Your task to perform on an android device: move a message to another label in the gmail app Image 0: 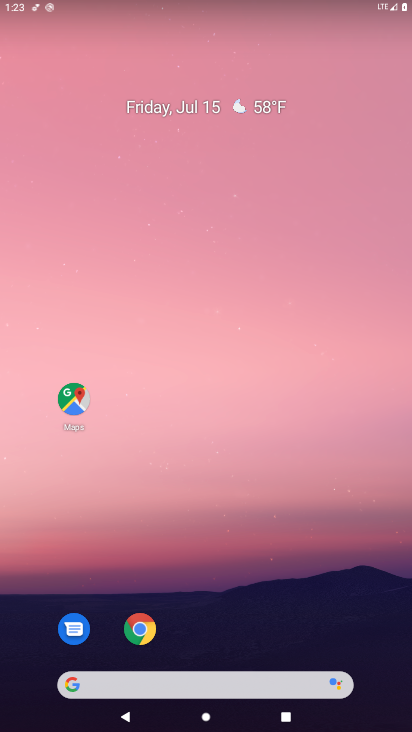
Step 0: press home button
Your task to perform on an android device: move a message to another label in the gmail app Image 1: 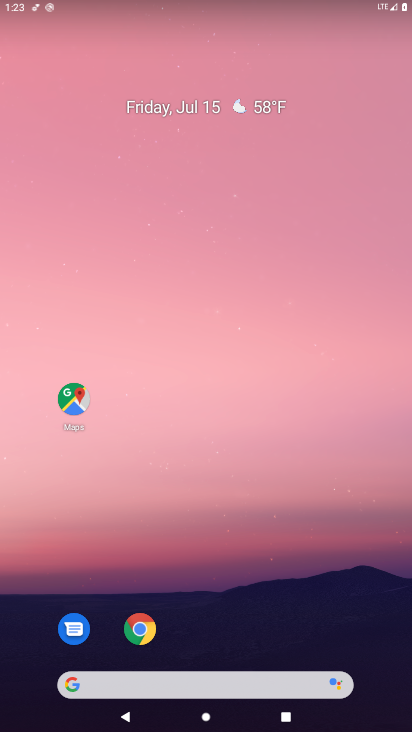
Step 1: drag from (266, 646) to (244, 86)
Your task to perform on an android device: move a message to another label in the gmail app Image 2: 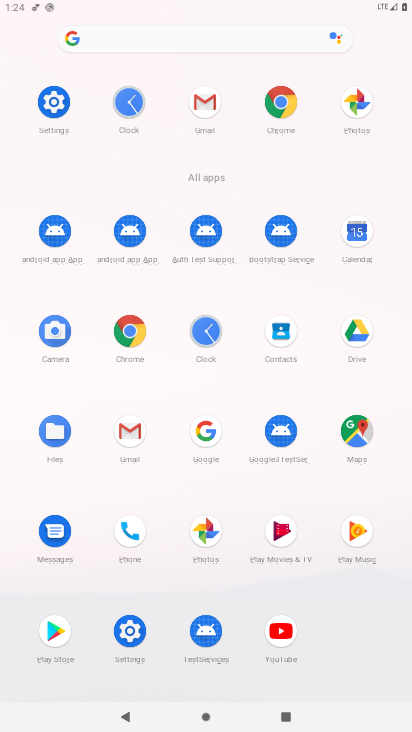
Step 2: click (132, 420)
Your task to perform on an android device: move a message to another label in the gmail app Image 3: 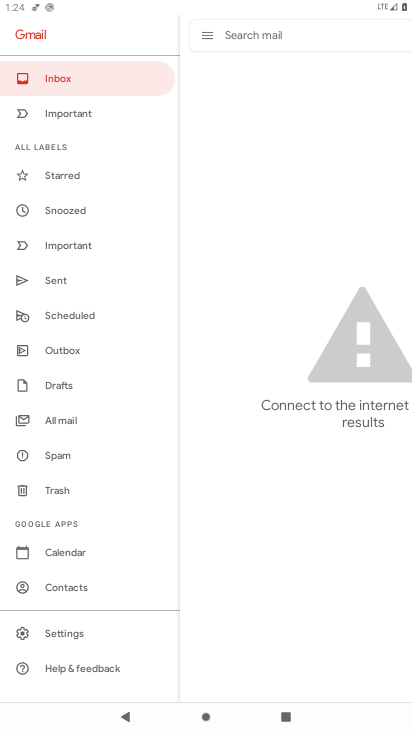
Step 3: click (215, 32)
Your task to perform on an android device: move a message to another label in the gmail app Image 4: 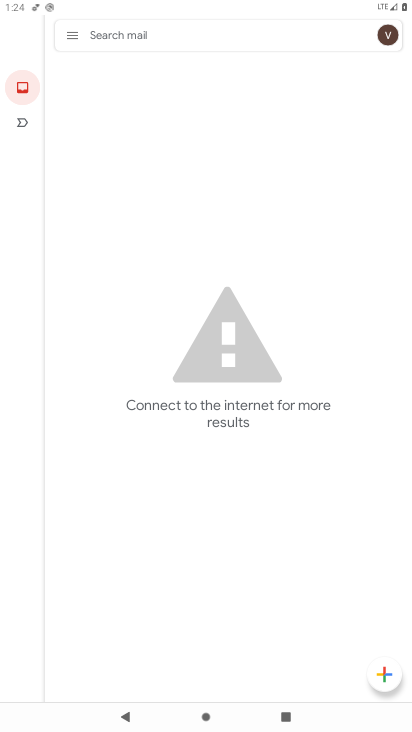
Step 4: task complete